Your task to perform on an android device: What's the weather going to be this weekend? Image 0: 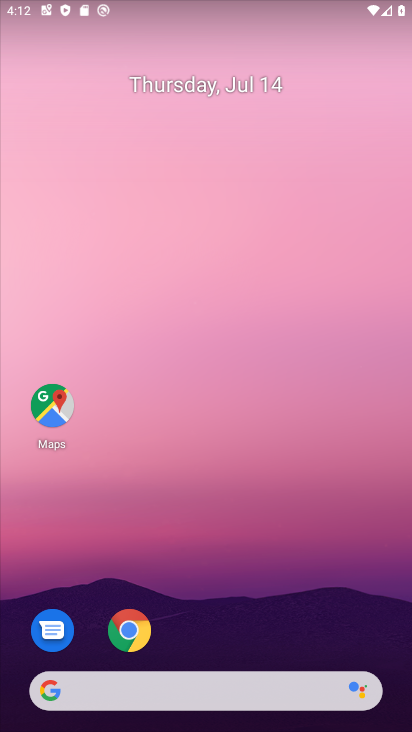
Step 0: click (336, 31)
Your task to perform on an android device: What's the weather going to be this weekend? Image 1: 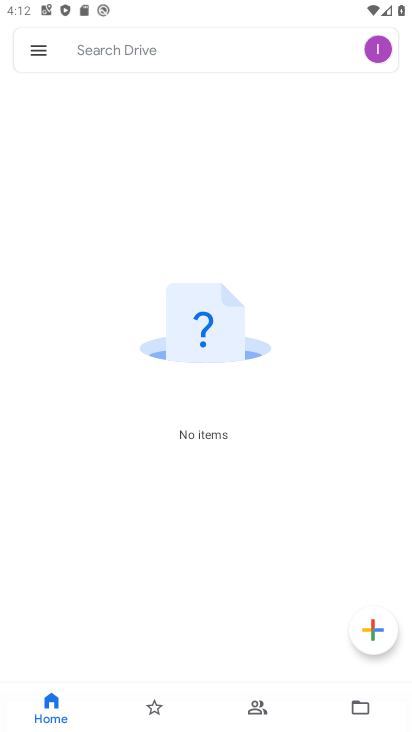
Step 1: press home button
Your task to perform on an android device: What's the weather going to be this weekend? Image 2: 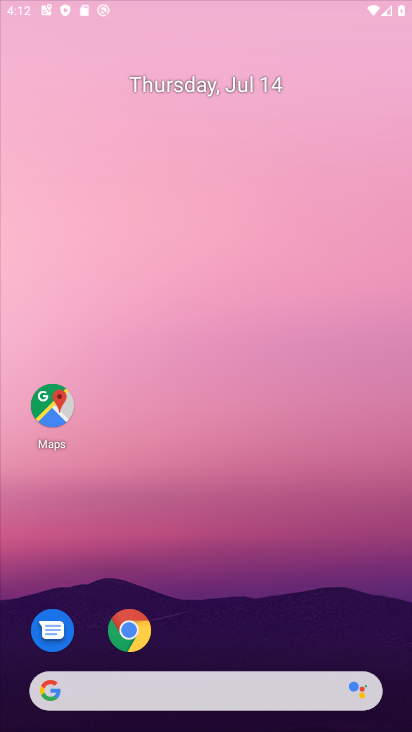
Step 2: drag from (235, 284) to (269, 10)
Your task to perform on an android device: What's the weather going to be this weekend? Image 3: 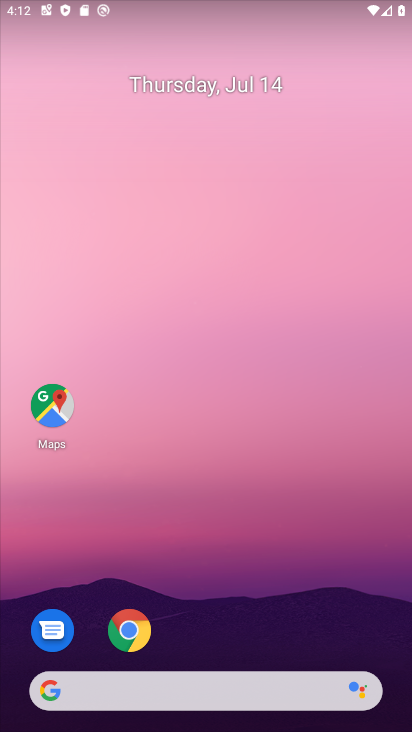
Step 3: drag from (261, 424) to (255, 21)
Your task to perform on an android device: What's the weather going to be this weekend? Image 4: 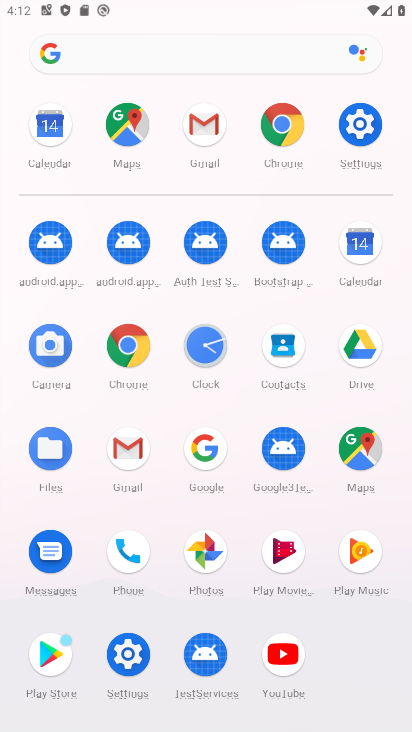
Step 4: click (54, 657)
Your task to perform on an android device: What's the weather going to be this weekend? Image 5: 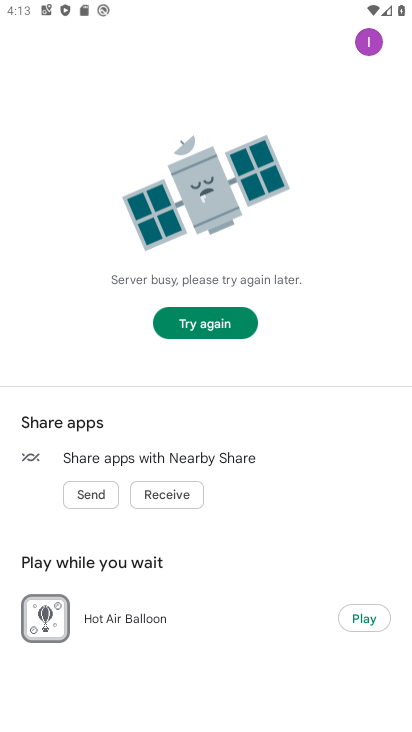
Step 5: press home button
Your task to perform on an android device: What's the weather going to be this weekend? Image 6: 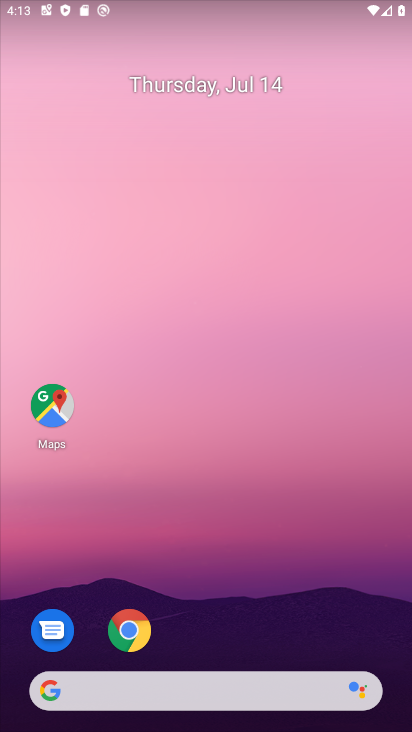
Step 6: drag from (319, 570) to (339, 33)
Your task to perform on an android device: What's the weather going to be this weekend? Image 7: 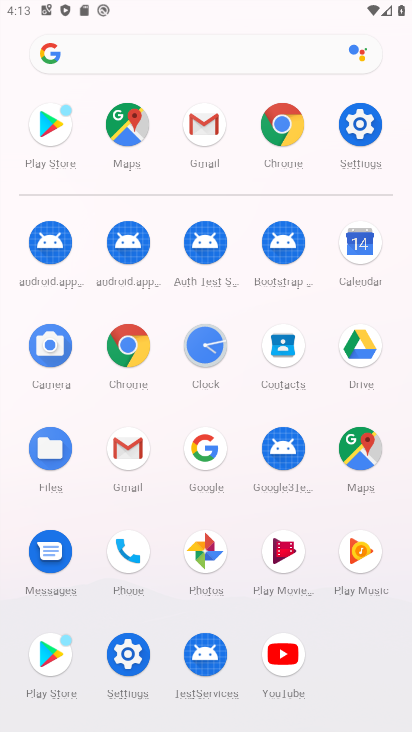
Step 7: click (131, 348)
Your task to perform on an android device: What's the weather going to be this weekend? Image 8: 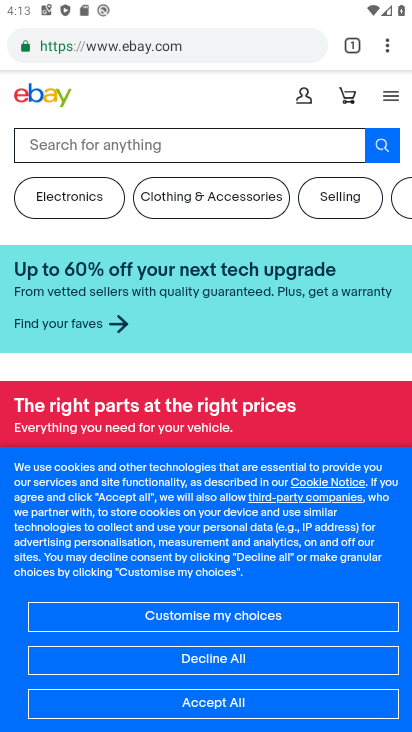
Step 8: click (200, 41)
Your task to perform on an android device: What's the weather going to be this weekend? Image 9: 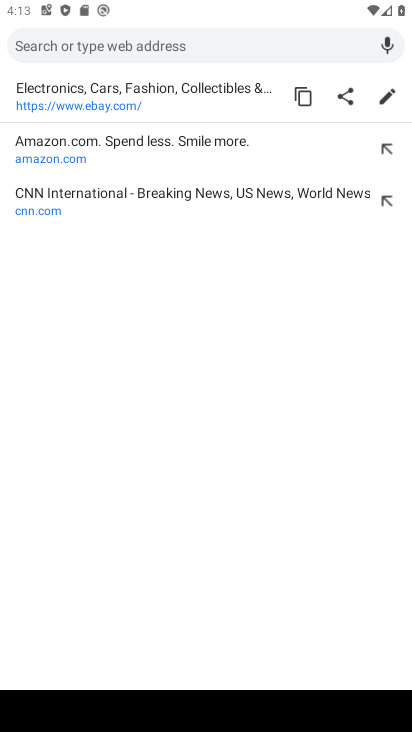
Step 9: type "weather going to be this weekend"
Your task to perform on an android device: What's the weather going to be this weekend? Image 10: 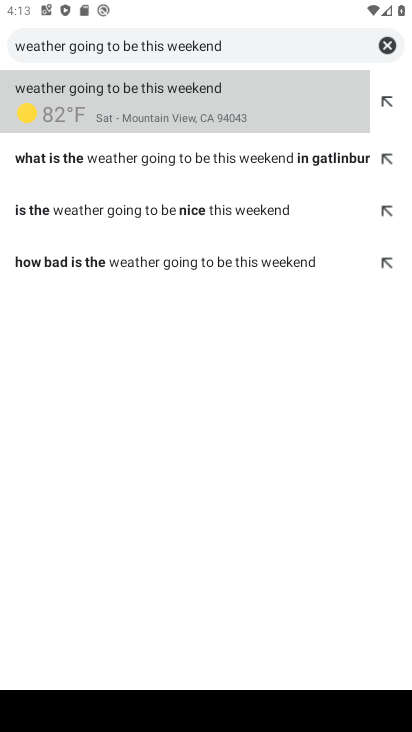
Step 10: click (200, 101)
Your task to perform on an android device: What's the weather going to be this weekend? Image 11: 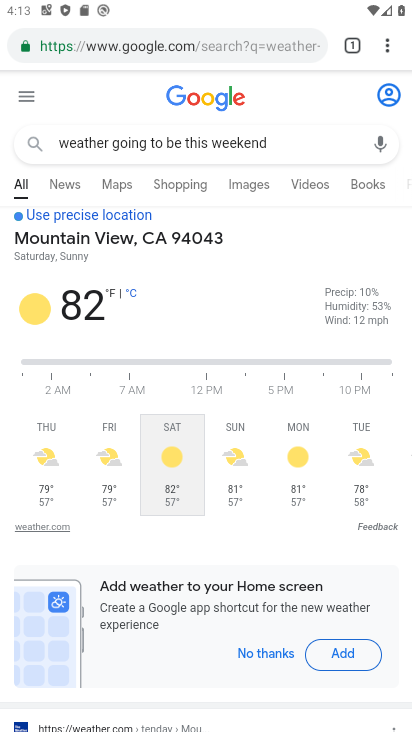
Step 11: task complete